Your task to perform on an android device: check data usage Image 0: 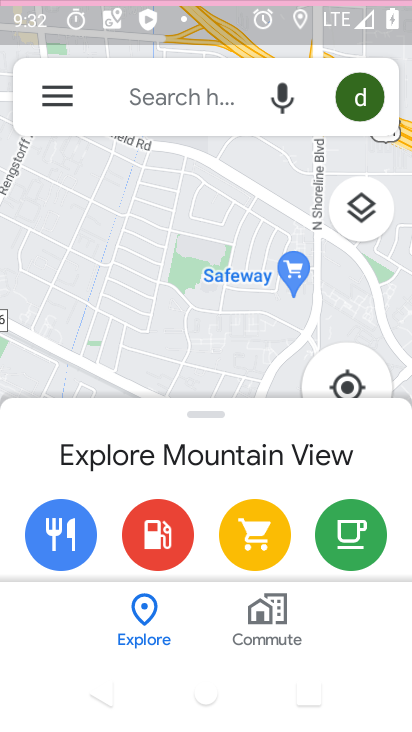
Step 0: click (233, 105)
Your task to perform on an android device: check data usage Image 1: 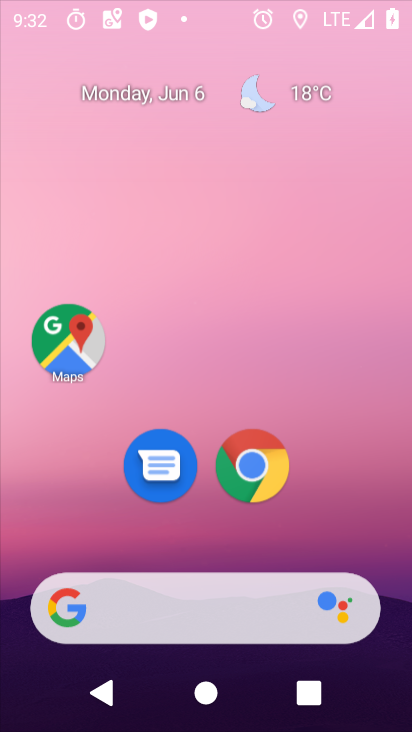
Step 1: drag from (194, 522) to (205, 160)
Your task to perform on an android device: check data usage Image 2: 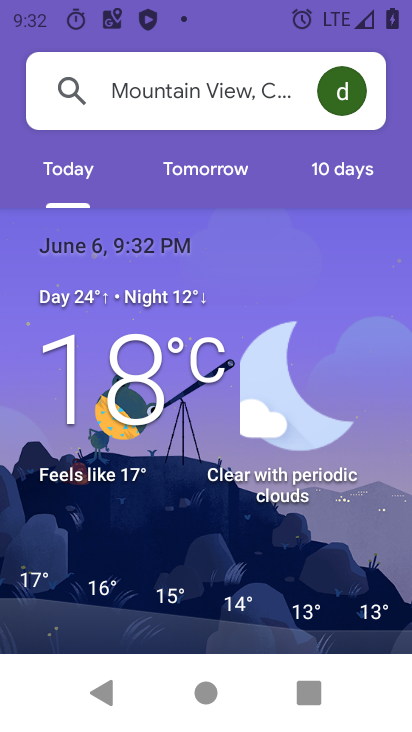
Step 2: drag from (244, 474) to (305, 309)
Your task to perform on an android device: check data usage Image 3: 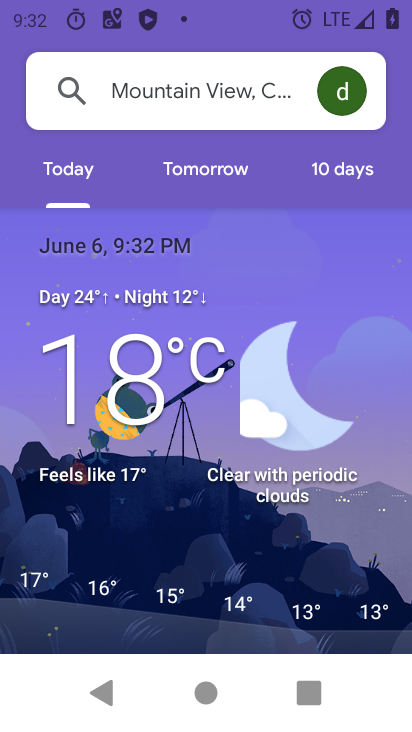
Step 3: press home button
Your task to perform on an android device: check data usage Image 4: 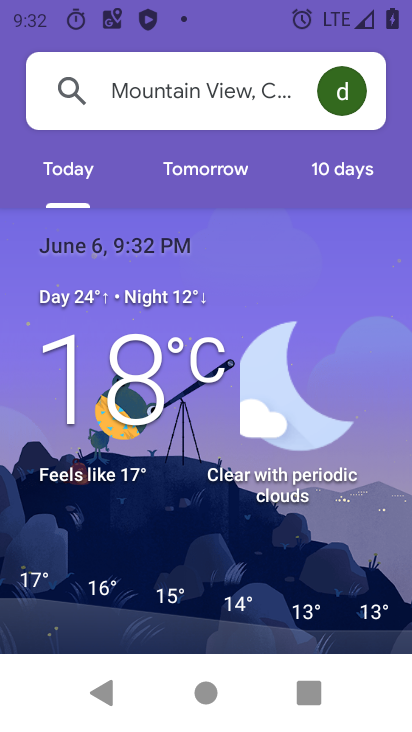
Step 4: press home button
Your task to perform on an android device: check data usage Image 5: 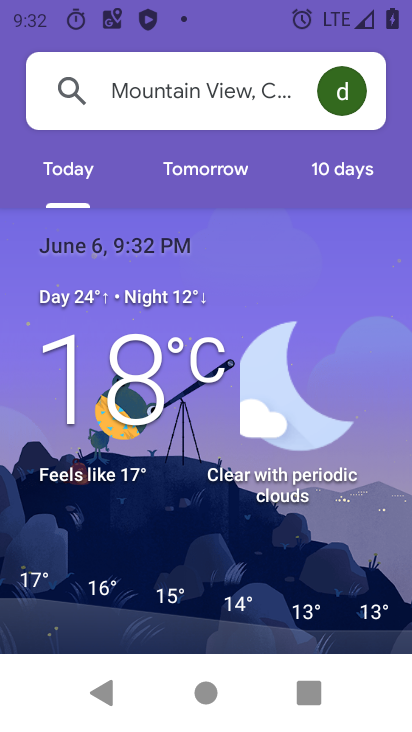
Step 5: click (289, 144)
Your task to perform on an android device: check data usage Image 6: 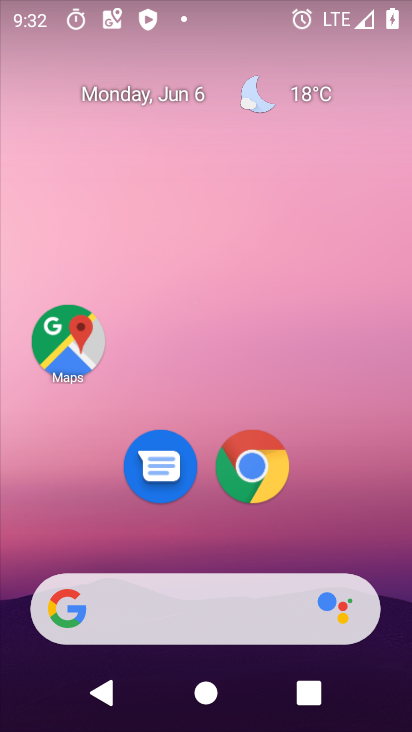
Step 6: drag from (187, 548) to (230, 169)
Your task to perform on an android device: check data usage Image 7: 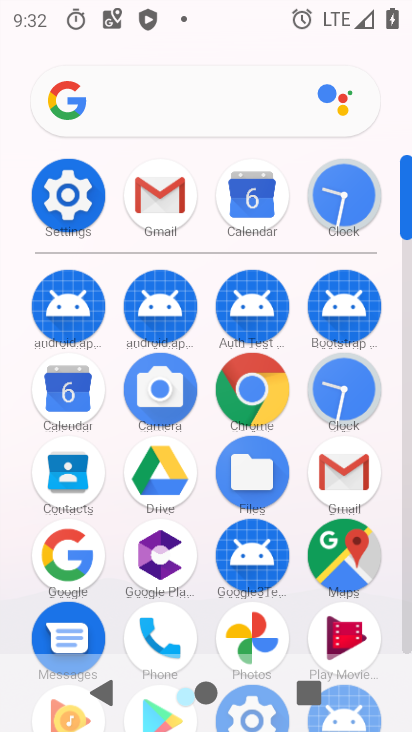
Step 7: click (56, 198)
Your task to perform on an android device: check data usage Image 8: 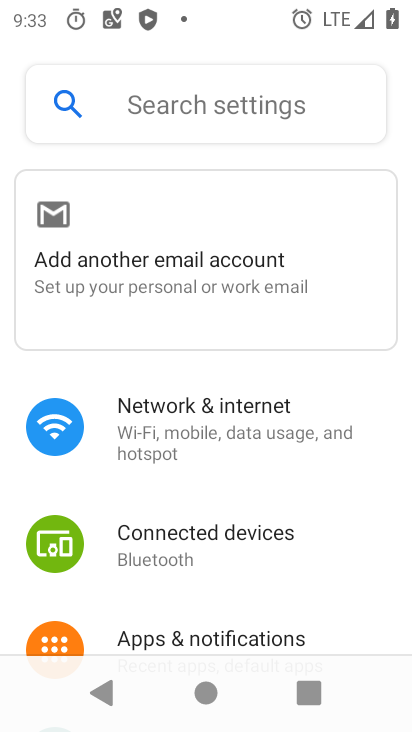
Step 8: click (192, 410)
Your task to perform on an android device: check data usage Image 9: 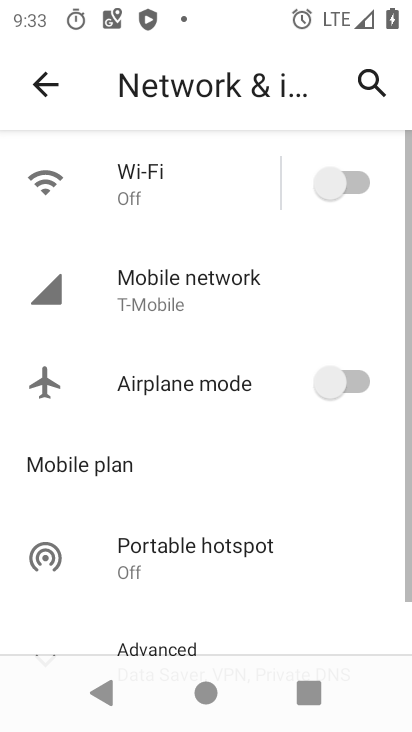
Step 9: drag from (225, 530) to (314, 200)
Your task to perform on an android device: check data usage Image 10: 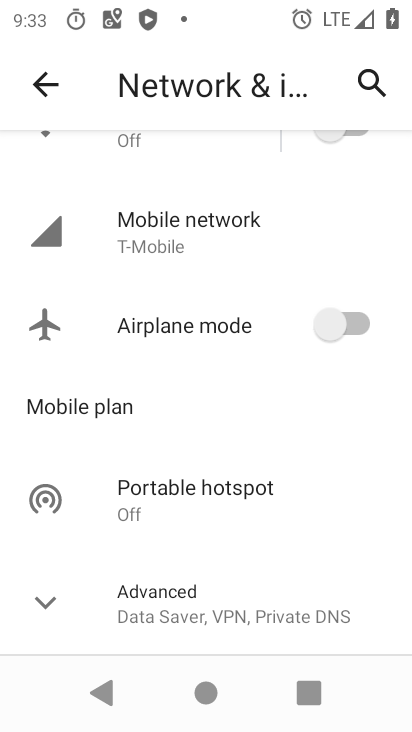
Step 10: click (147, 235)
Your task to perform on an android device: check data usage Image 11: 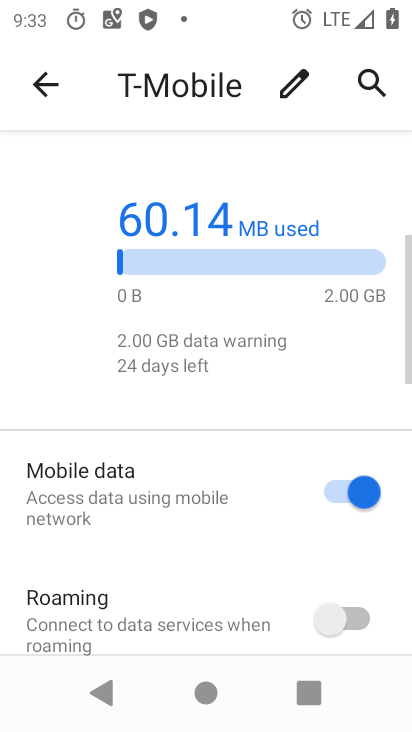
Step 11: task complete